Your task to perform on an android device: See recent photos Image 0: 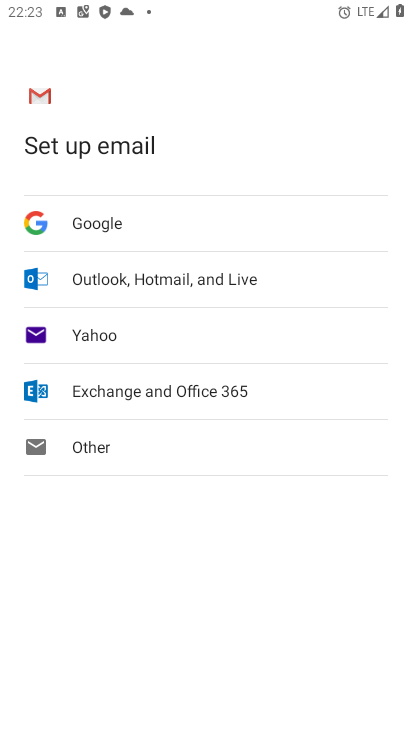
Step 0: press home button
Your task to perform on an android device: See recent photos Image 1: 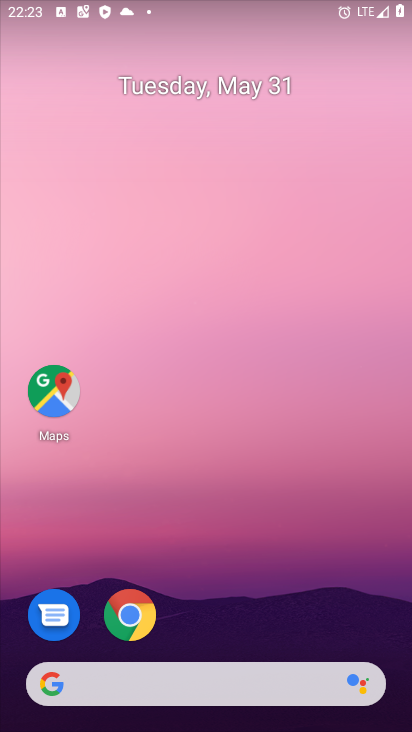
Step 1: drag from (399, 618) to (250, 39)
Your task to perform on an android device: See recent photos Image 2: 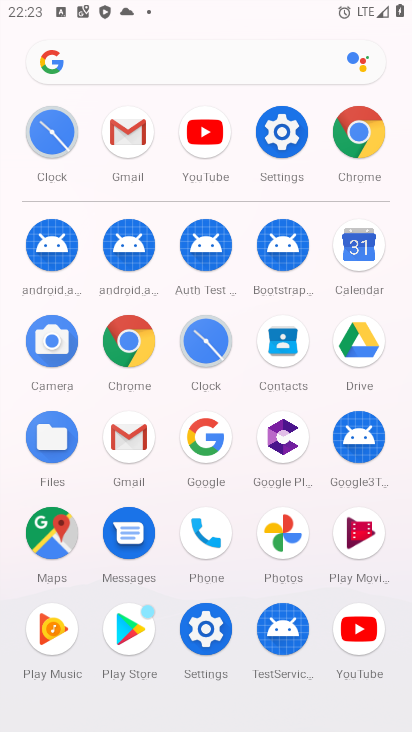
Step 2: click (286, 529)
Your task to perform on an android device: See recent photos Image 3: 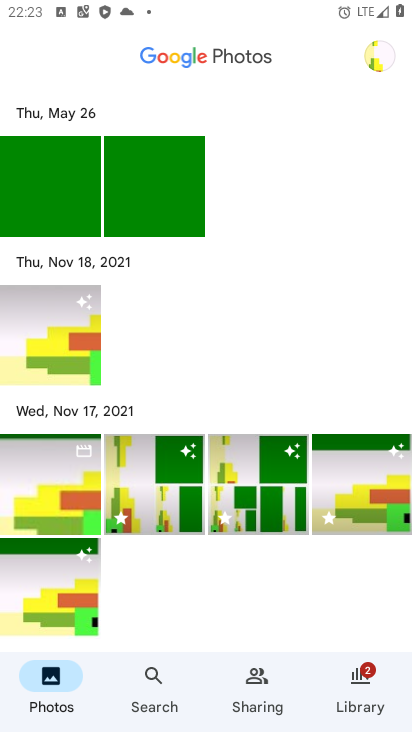
Step 3: task complete